Your task to perform on an android device: Turn off the flashlight Image 0: 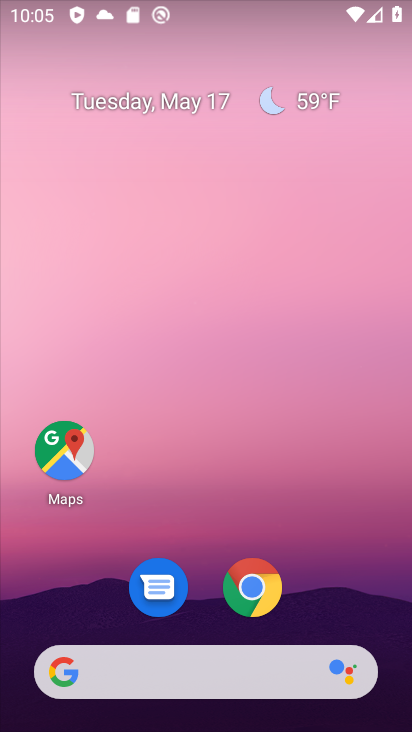
Step 0: drag from (325, 565) to (285, 269)
Your task to perform on an android device: Turn off the flashlight Image 1: 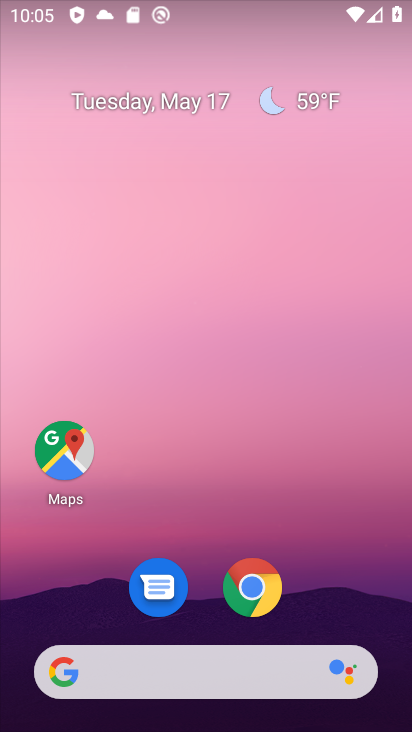
Step 1: drag from (362, 613) to (283, 354)
Your task to perform on an android device: Turn off the flashlight Image 2: 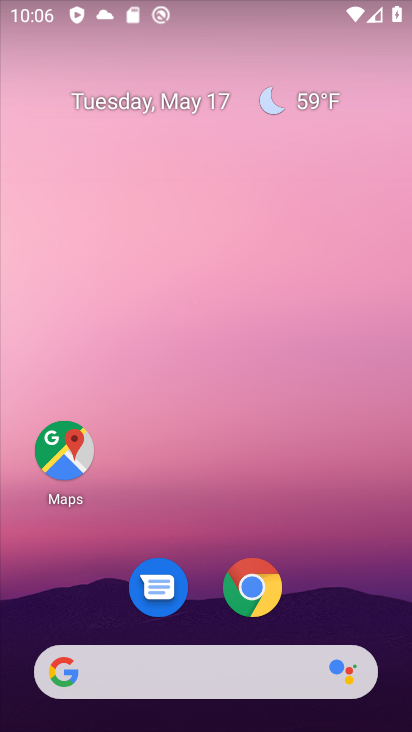
Step 2: drag from (331, 604) to (296, 362)
Your task to perform on an android device: Turn off the flashlight Image 3: 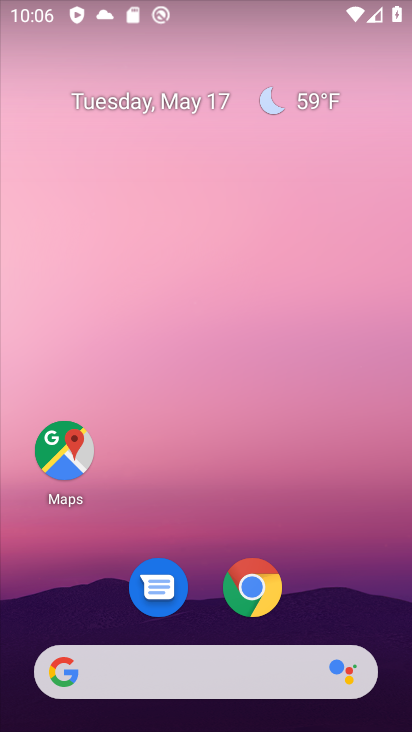
Step 3: drag from (348, 604) to (312, 226)
Your task to perform on an android device: Turn off the flashlight Image 4: 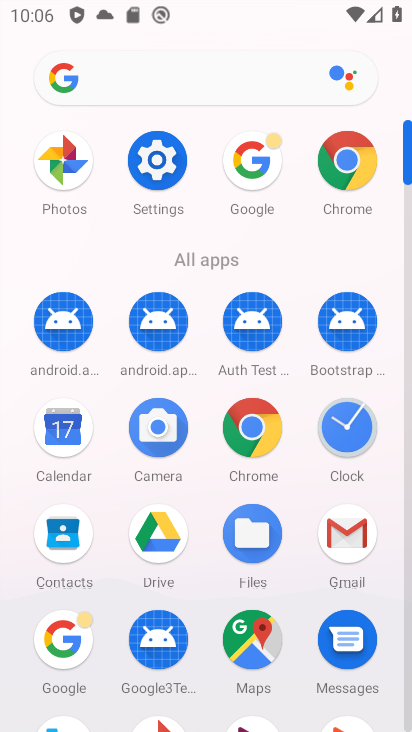
Step 4: click (161, 141)
Your task to perform on an android device: Turn off the flashlight Image 5: 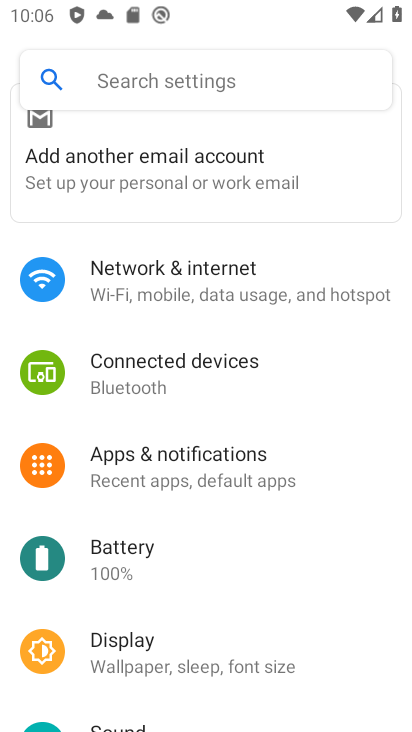
Step 5: click (190, 476)
Your task to perform on an android device: Turn off the flashlight Image 6: 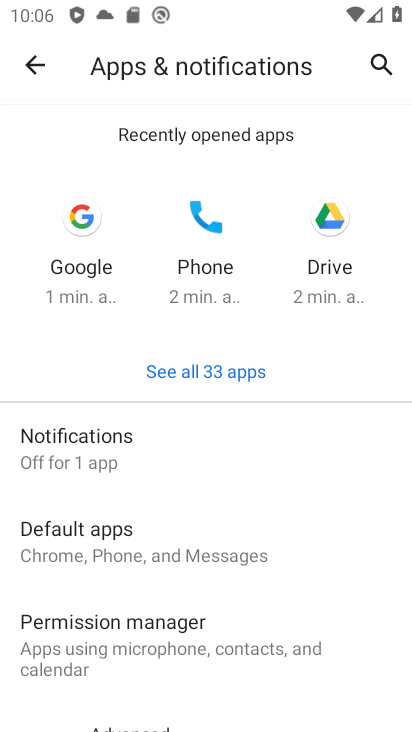
Step 6: drag from (275, 600) to (261, 273)
Your task to perform on an android device: Turn off the flashlight Image 7: 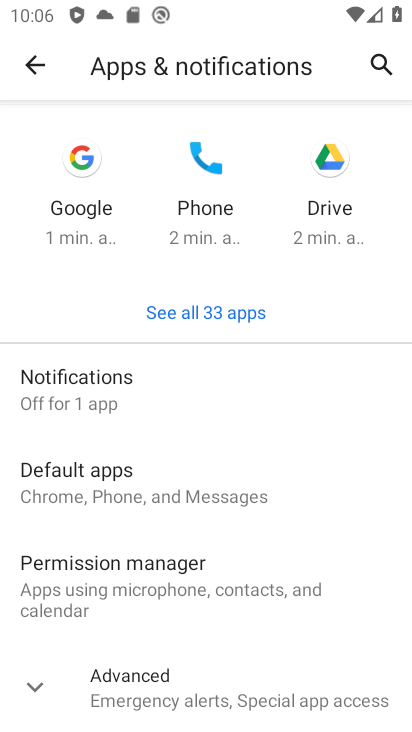
Step 7: click (160, 696)
Your task to perform on an android device: Turn off the flashlight Image 8: 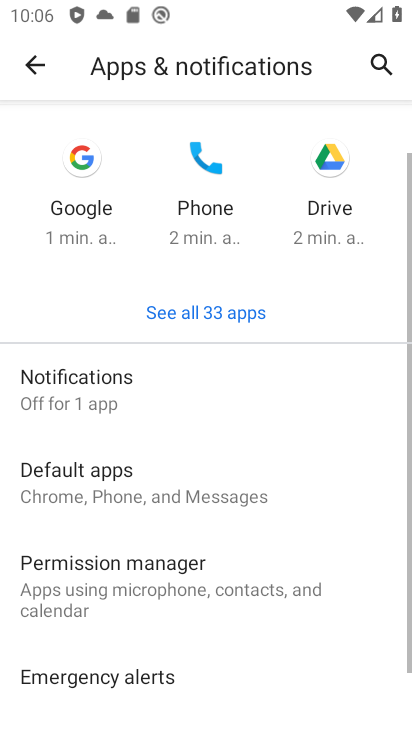
Step 8: task complete